Your task to perform on an android device: Turn off the flashlight Image 0: 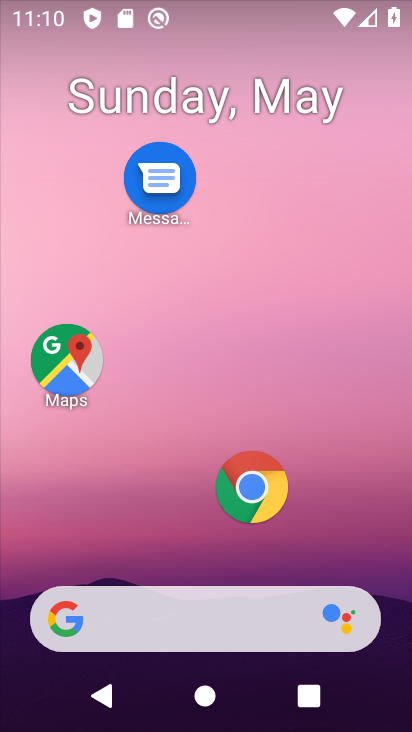
Step 0: drag from (149, 550) to (167, 0)
Your task to perform on an android device: Turn off the flashlight Image 1: 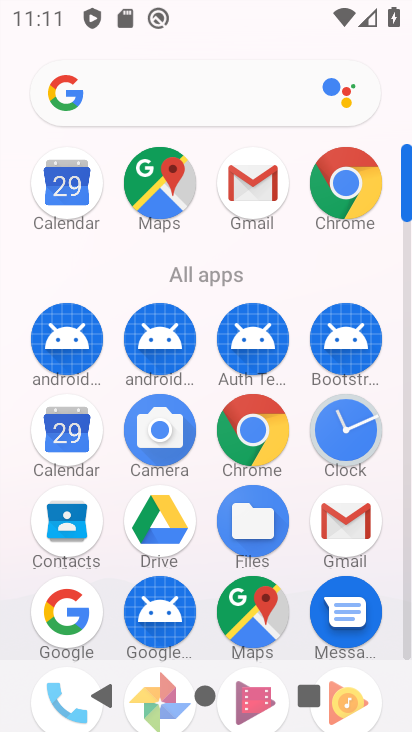
Step 1: drag from (201, 579) to (328, 93)
Your task to perform on an android device: Turn off the flashlight Image 2: 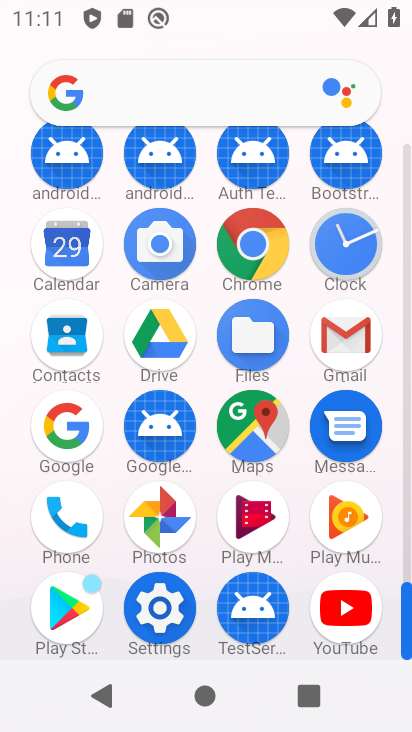
Step 2: click (146, 618)
Your task to perform on an android device: Turn off the flashlight Image 3: 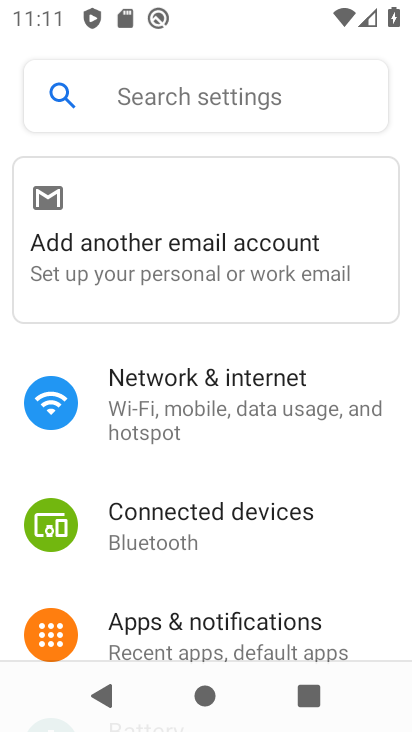
Step 3: drag from (204, 497) to (257, 135)
Your task to perform on an android device: Turn off the flashlight Image 4: 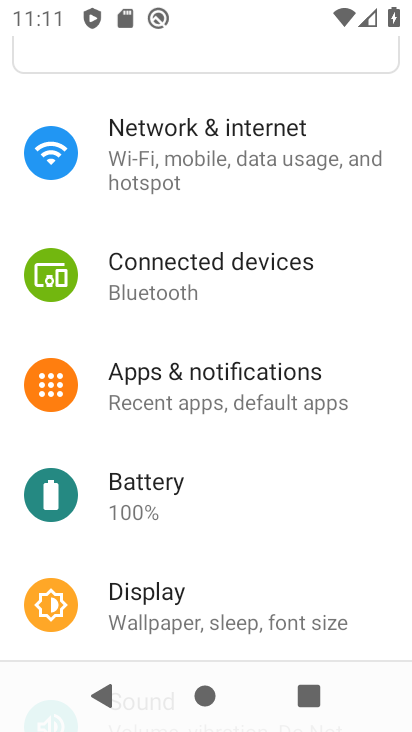
Step 4: drag from (210, 558) to (209, 232)
Your task to perform on an android device: Turn off the flashlight Image 5: 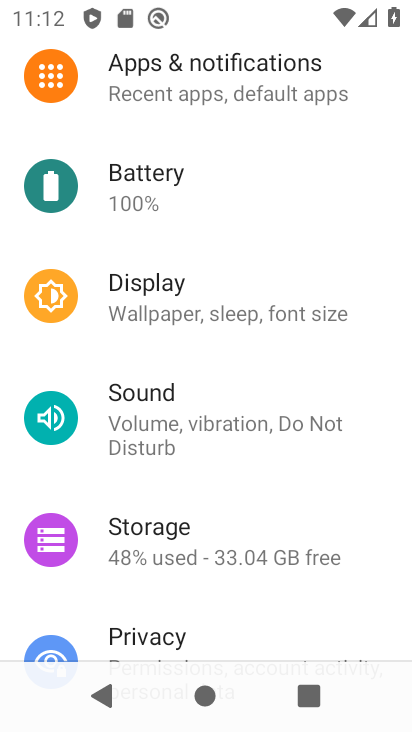
Step 5: drag from (171, 606) to (195, 250)
Your task to perform on an android device: Turn off the flashlight Image 6: 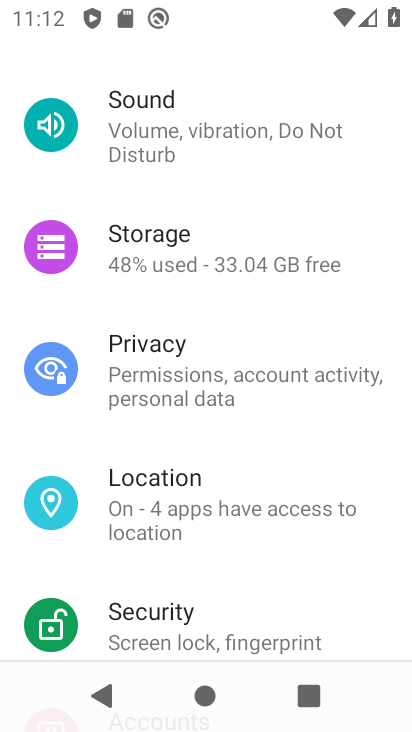
Step 6: drag from (226, 509) to (215, 299)
Your task to perform on an android device: Turn off the flashlight Image 7: 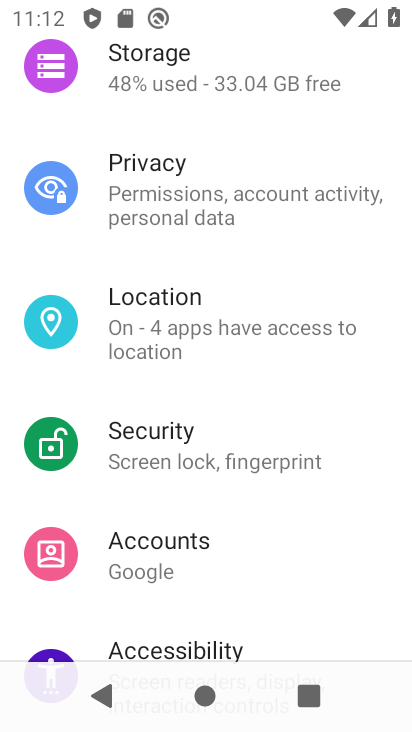
Step 7: drag from (213, 530) to (205, 190)
Your task to perform on an android device: Turn off the flashlight Image 8: 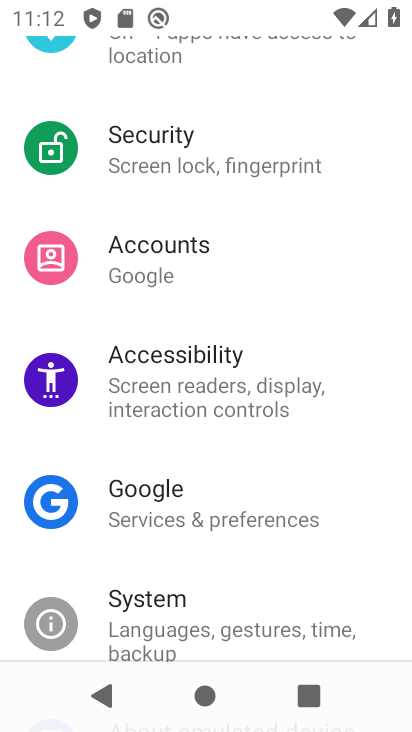
Step 8: drag from (221, 482) to (231, 182)
Your task to perform on an android device: Turn off the flashlight Image 9: 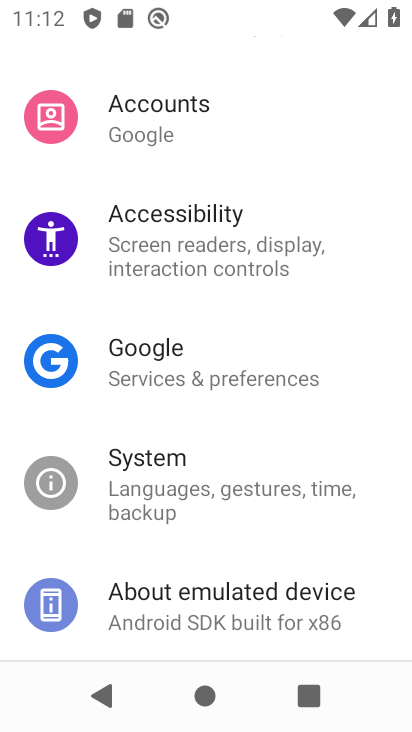
Step 9: click (196, 521)
Your task to perform on an android device: Turn off the flashlight Image 10: 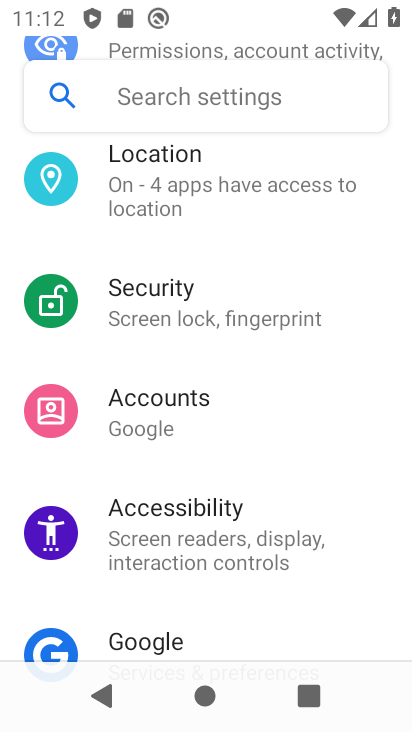
Step 10: task complete